Your task to perform on an android device: manage bookmarks in the chrome app Image 0: 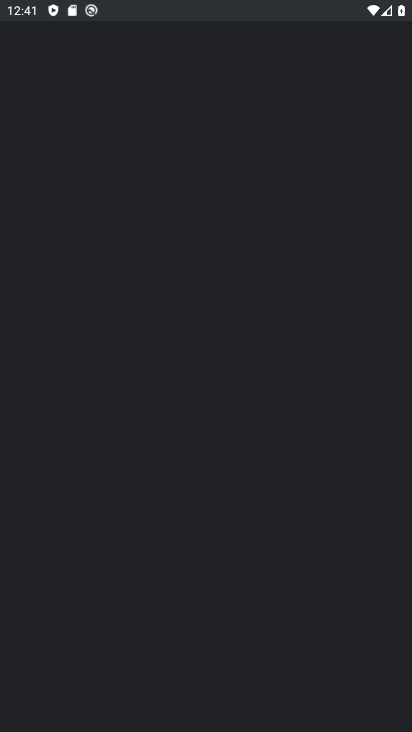
Step 0: press home button
Your task to perform on an android device: manage bookmarks in the chrome app Image 1: 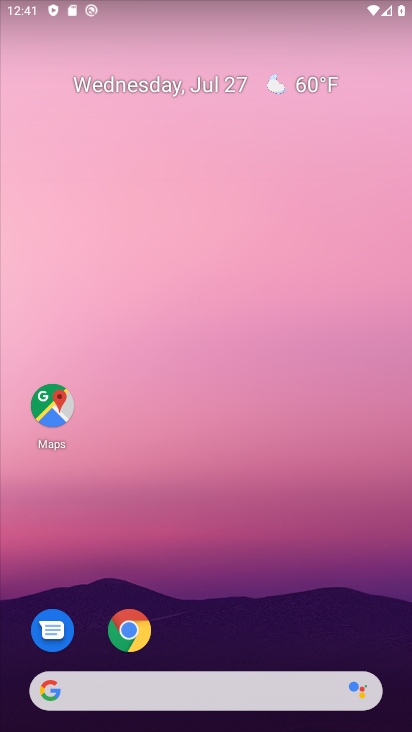
Step 1: drag from (239, 643) to (237, 174)
Your task to perform on an android device: manage bookmarks in the chrome app Image 2: 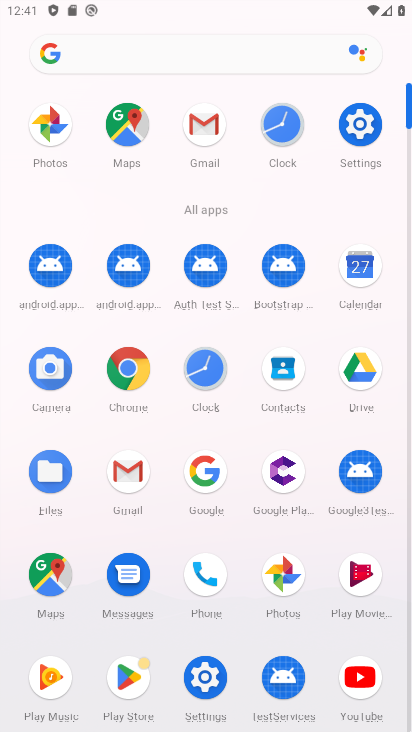
Step 2: click (125, 382)
Your task to perform on an android device: manage bookmarks in the chrome app Image 3: 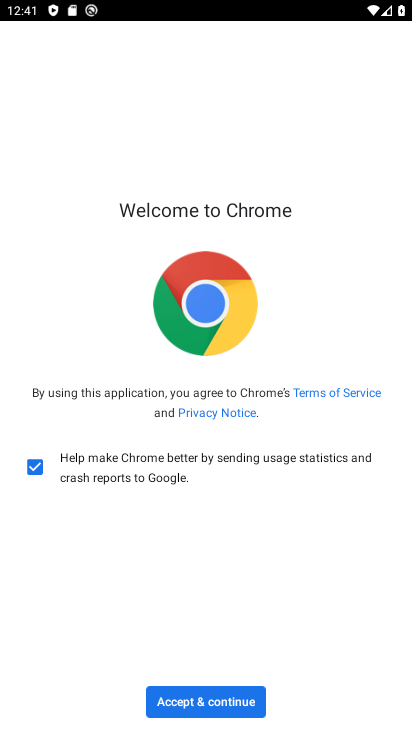
Step 3: click (180, 698)
Your task to perform on an android device: manage bookmarks in the chrome app Image 4: 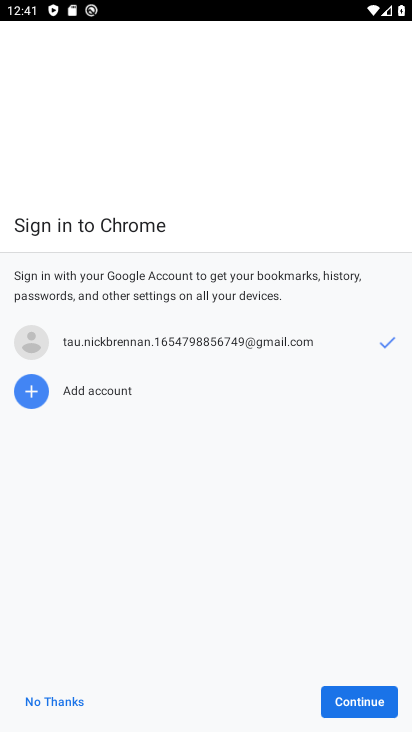
Step 4: click (368, 697)
Your task to perform on an android device: manage bookmarks in the chrome app Image 5: 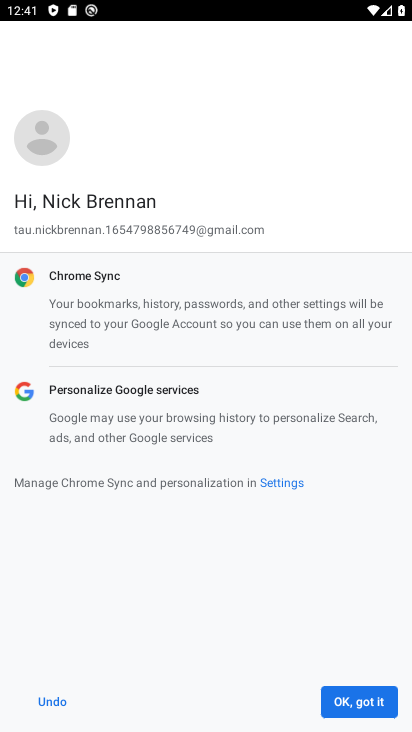
Step 5: click (368, 697)
Your task to perform on an android device: manage bookmarks in the chrome app Image 6: 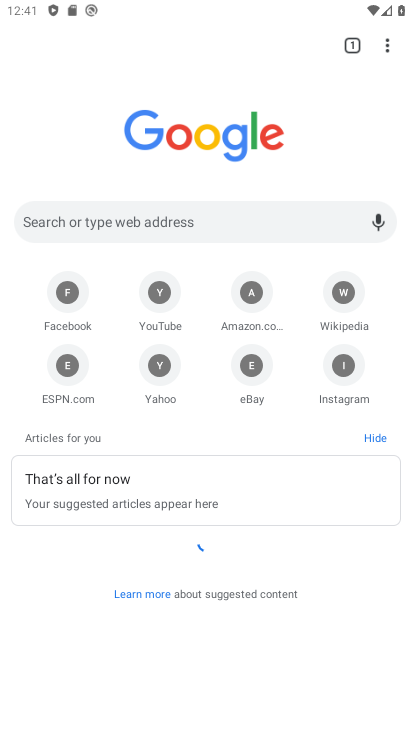
Step 6: drag from (385, 43) to (243, 174)
Your task to perform on an android device: manage bookmarks in the chrome app Image 7: 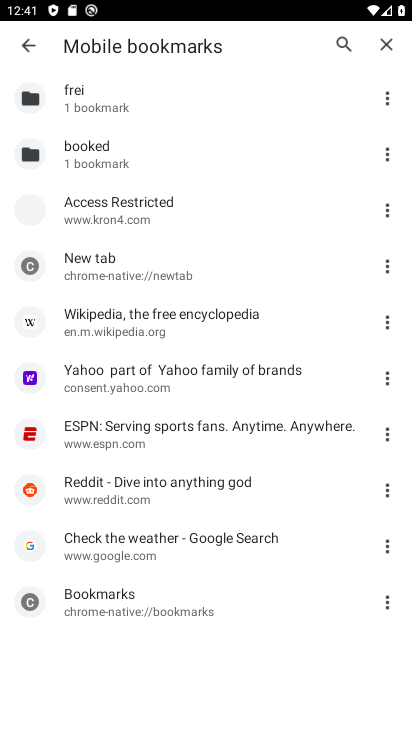
Step 7: click (384, 157)
Your task to perform on an android device: manage bookmarks in the chrome app Image 8: 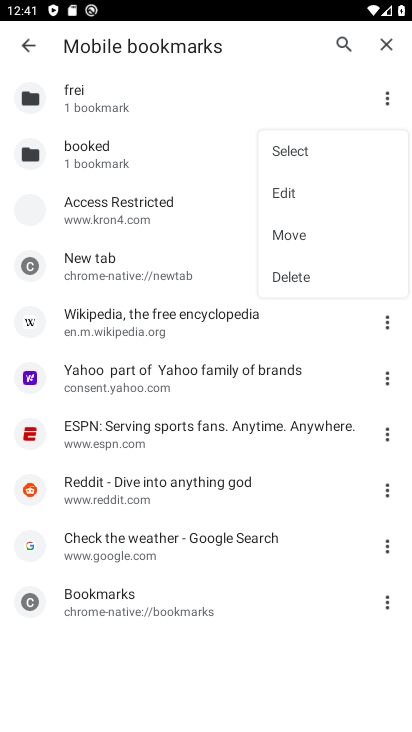
Step 8: click (282, 190)
Your task to perform on an android device: manage bookmarks in the chrome app Image 9: 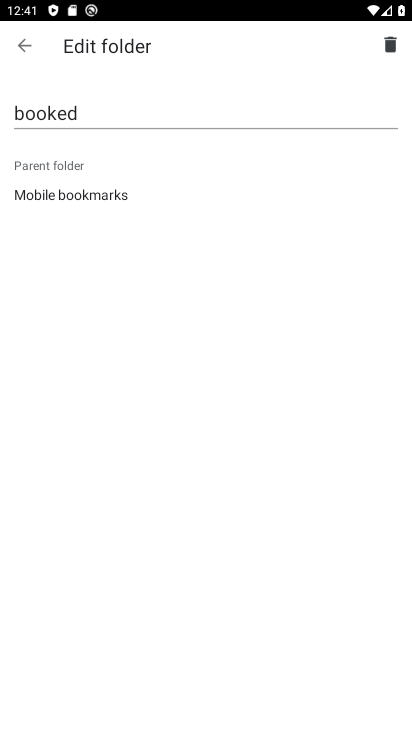
Step 9: click (92, 194)
Your task to perform on an android device: manage bookmarks in the chrome app Image 10: 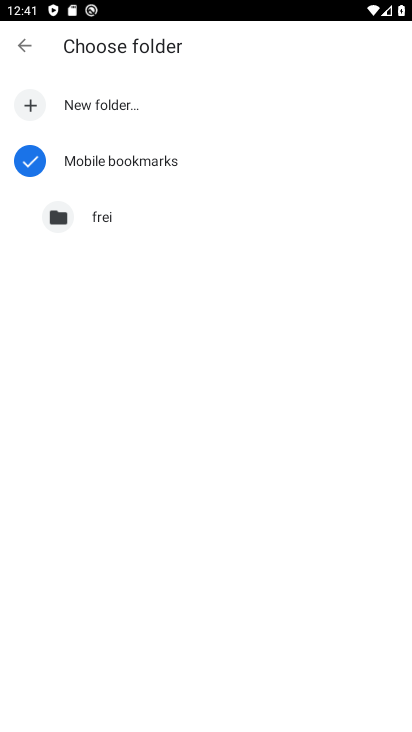
Step 10: task complete